Your task to perform on an android device: visit the assistant section in the google photos Image 0: 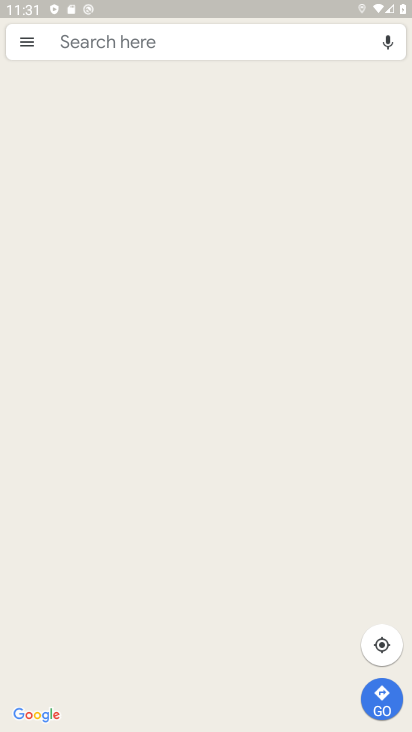
Step 0: press home button
Your task to perform on an android device: visit the assistant section in the google photos Image 1: 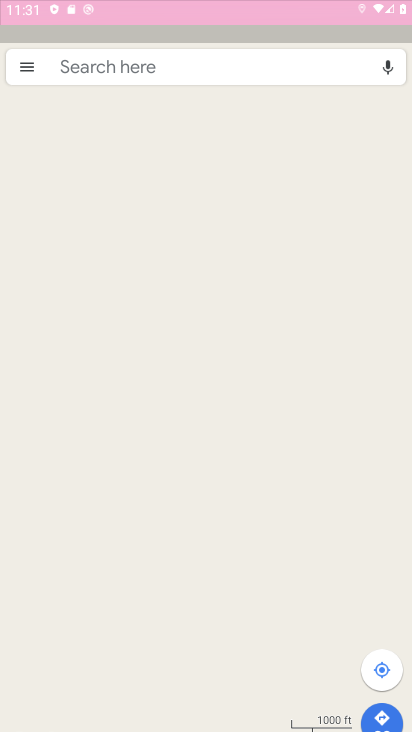
Step 1: press home button
Your task to perform on an android device: visit the assistant section in the google photos Image 2: 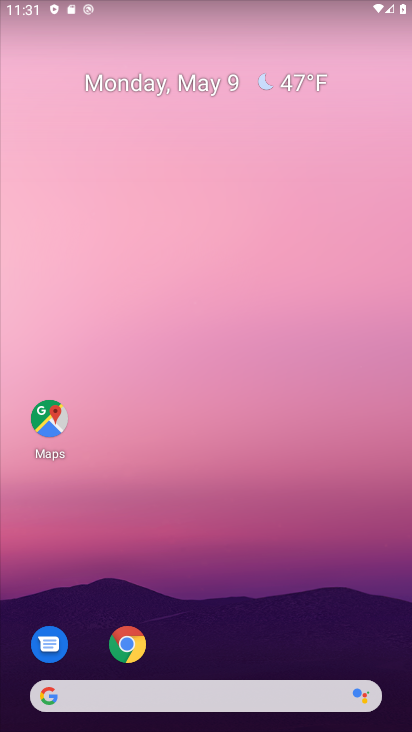
Step 2: click (118, 636)
Your task to perform on an android device: visit the assistant section in the google photos Image 3: 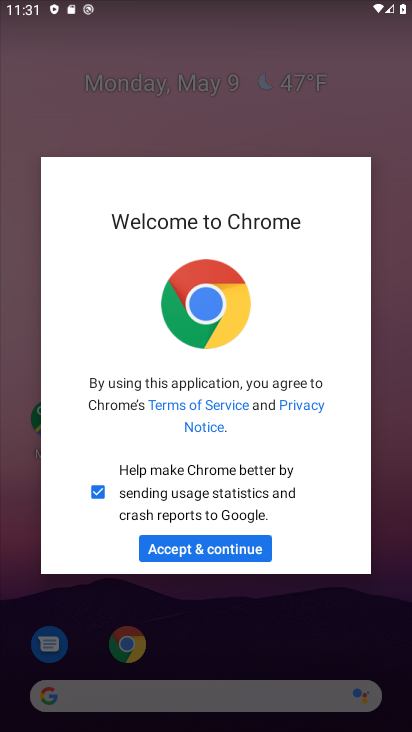
Step 3: press home button
Your task to perform on an android device: visit the assistant section in the google photos Image 4: 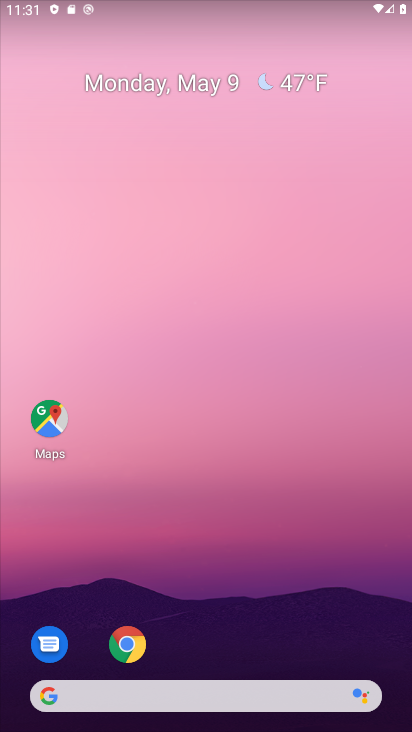
Step 4: drag from (45, 581) to (315, 196)
Your task to perform on an android device: visit the assistant section in the google photos Image 5: 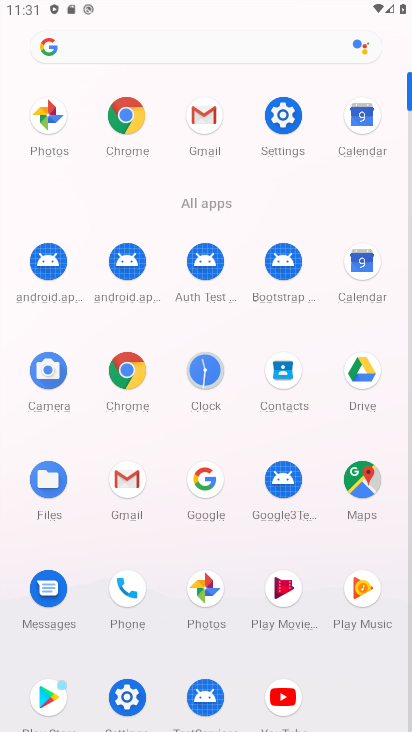
Step 5: click (57, 109)
Your task to perform on an android device: visit the assistant section in the google photos Image 6: 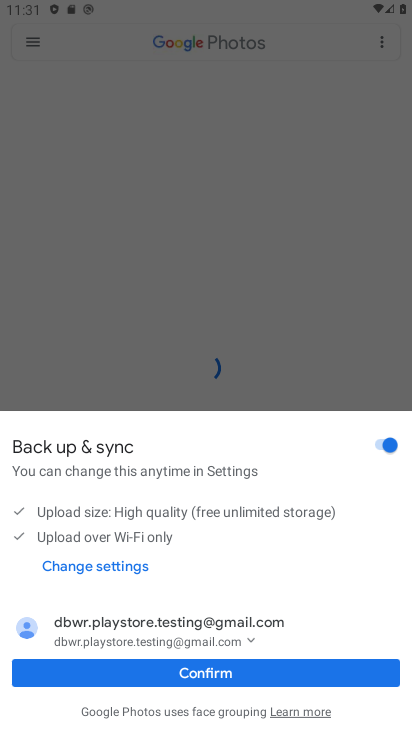
Step 6: click (111, 678)
Your task to perform on an android device: visit the assistant section in the google photos Image 7: 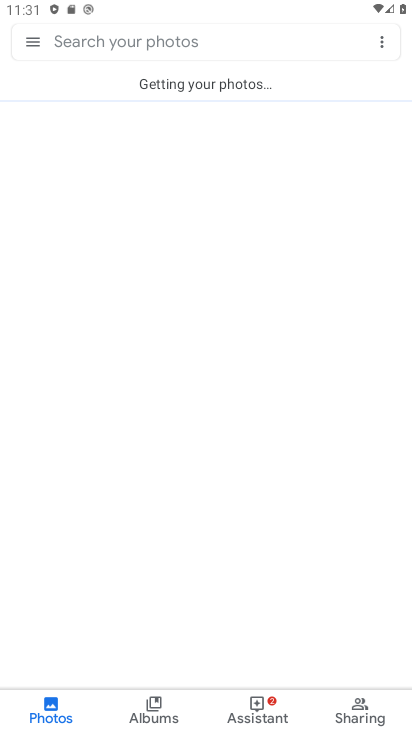
Step 7: click (258, 701)
Your task to perform on an android device: visit the assistant section in the google photos Image 8: 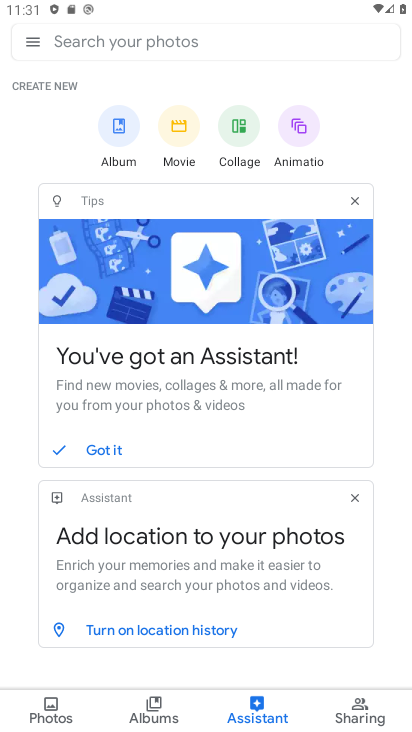
Step 8: task complete